Your task to perform on an android device: Is it going to rain this weekend? Image 0: 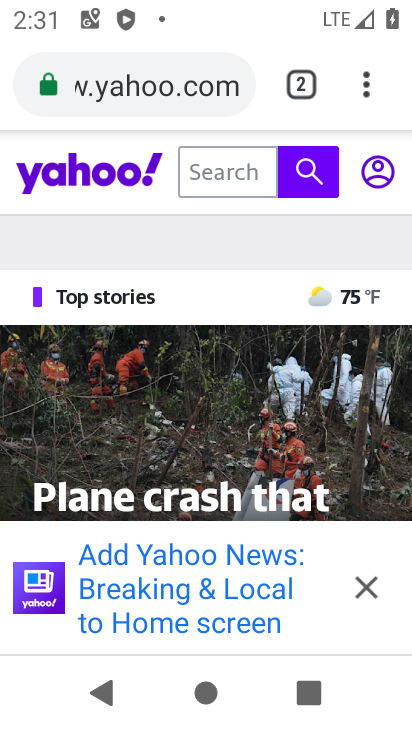
Step 0: click (121, 71)
Your task to perform on an android device: Is it going to rain this weekend? Image 1: 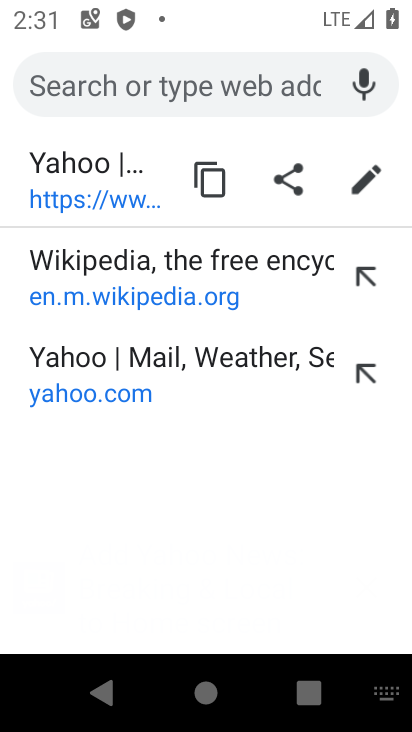
Step 1: type "Is it going to rain this weekend?"
Your task to perform on an android device: Is it going to rain this weekend? Image 2: 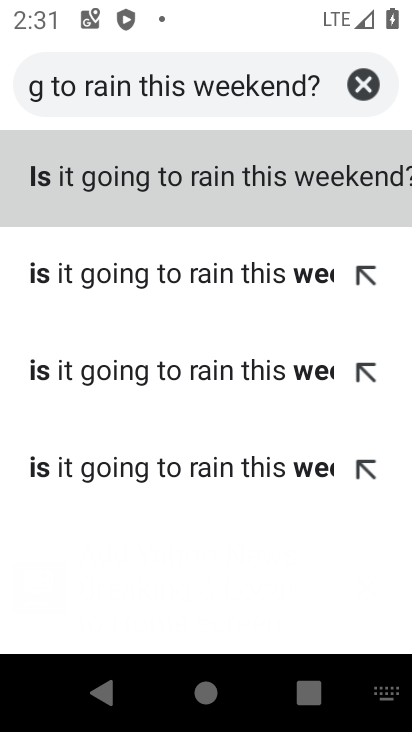
Step 2: click (370, 174)
Your task to perform on an android device: Is it going to rain this weekend? Image 3: 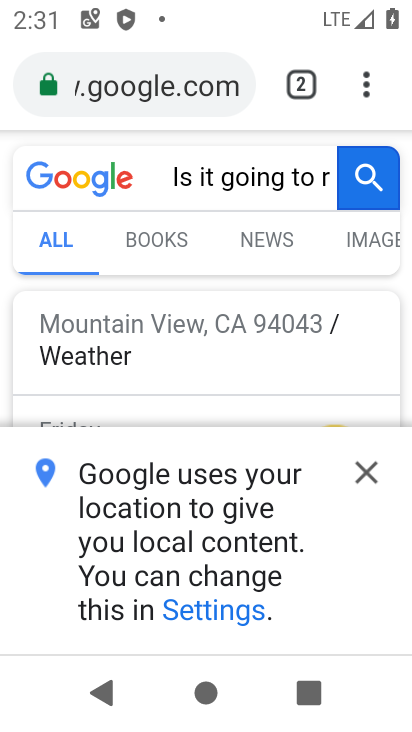
Step 3: click (366, 477)
Your task to perform on an android device: Is it going to rain this weekend? Image 4: 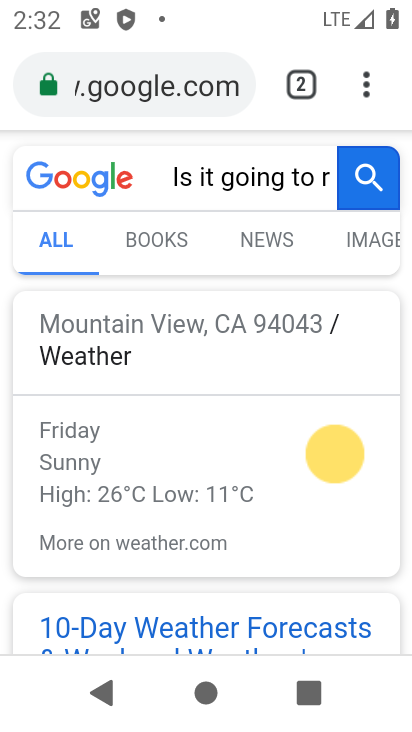
Step 4: task complete